Your task to perform on an android device: What's the weather going to be this weekend? Image 0: 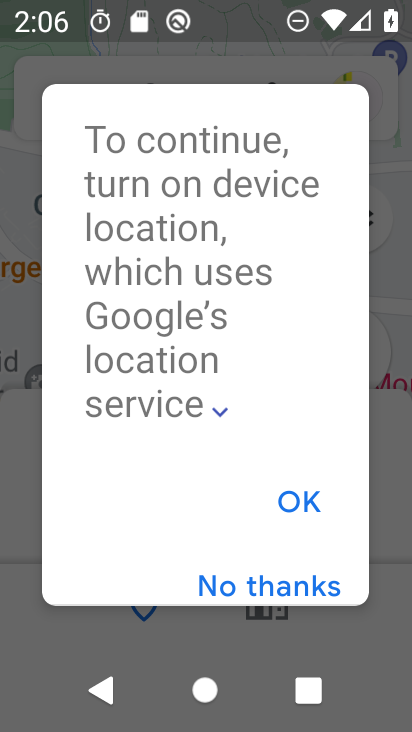
Step 0: press home button
Your task to perform on an android device: What's the weather going to be this weekend? Image 1: 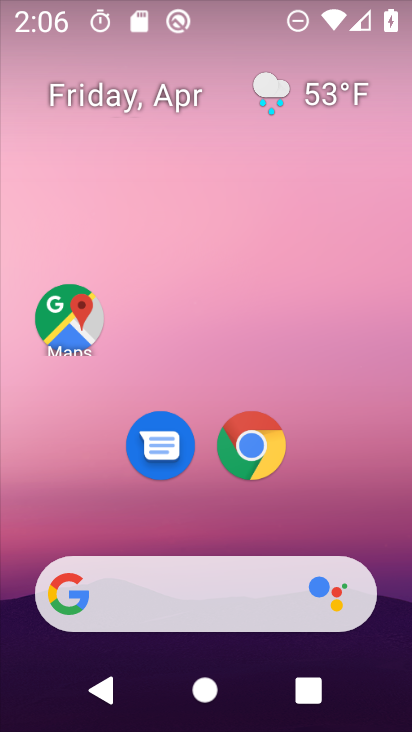
Step 1: click (221, 588)
Your task to perform on an android device: What's the weather going to be this weekend? Image 2: 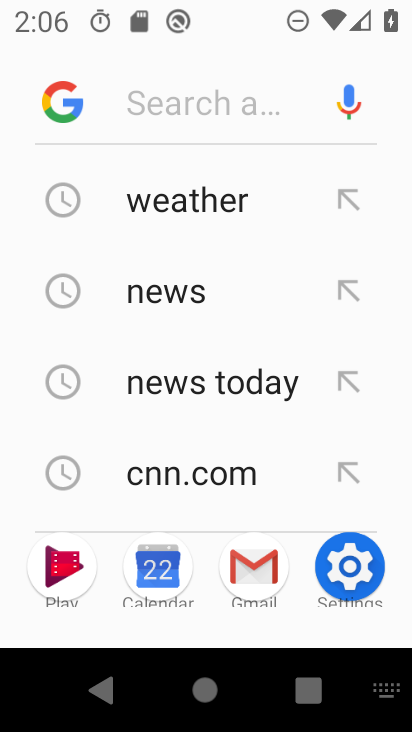
Step 2: click (183, 213)
Your task to perform on an android device: What's the weather going to be this weekend? Image 3: 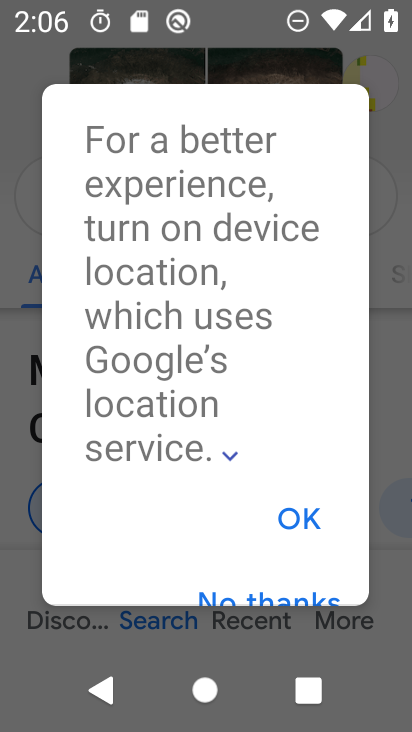
Step 3: drag from (241, 521) to (246, 308)
Your task to perform on an android device: What's the weather going to be this weekend? Image 4: 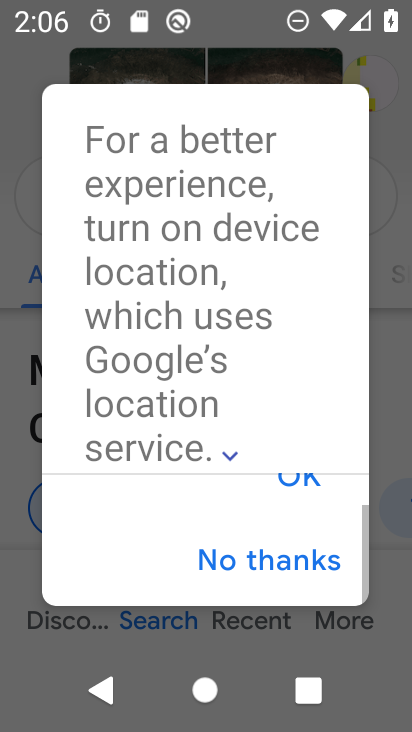
Step 4: click (264, 567)
Your task to perform on an android device: What's the weather going to be this weekend? Image 5: 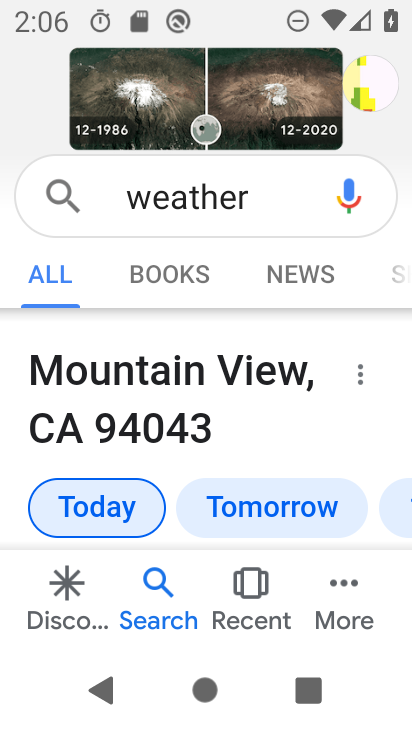
Step 5: click (398, 514)
Your task to perform on an android device: What's the weather going to be this weekend? Image 6: 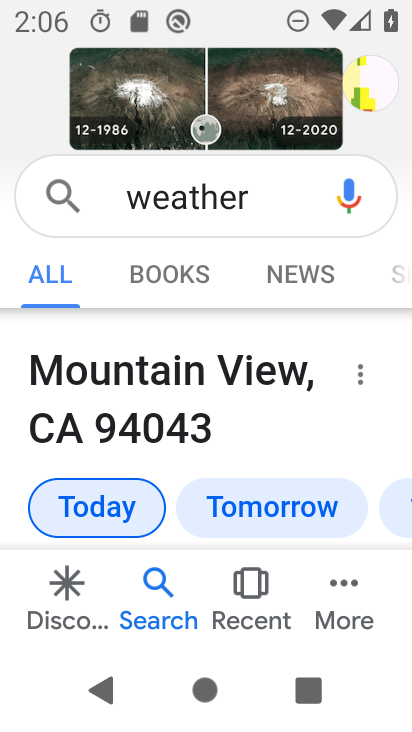
Step 6: drag from (333, 477) to (320, 272)
Your task to perform on an android device: What's the weather going to be this weekend? Image 7: 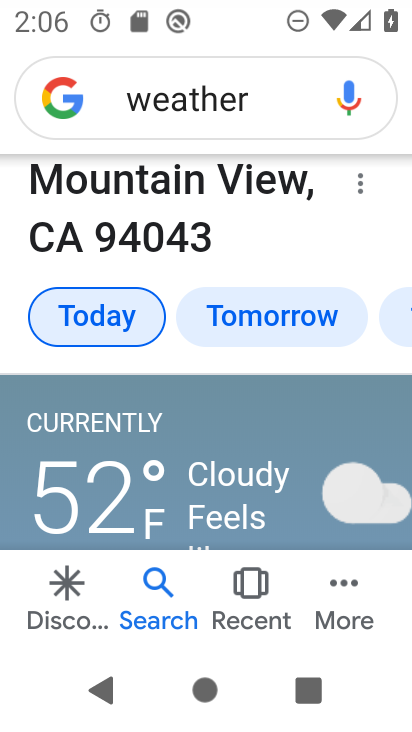
Step 7: drag from (364, 351) to (29, 339)
Your task to perform on an android device: What's the weather going to be this weekend? Image 8: 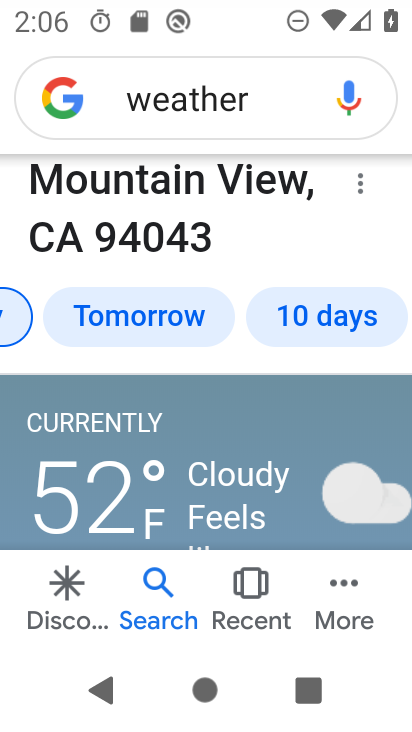
Step 8: click (350, 315)
Your task to perform on an android device: What's the weather going to be this weekend? Image 9: 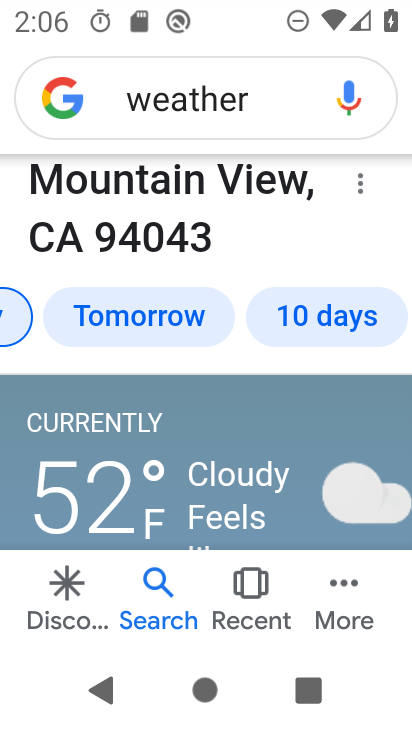
Step 9: click (329, 312)
Your task to perform on an android device: What's the weather going to be this weekend? Image 10: 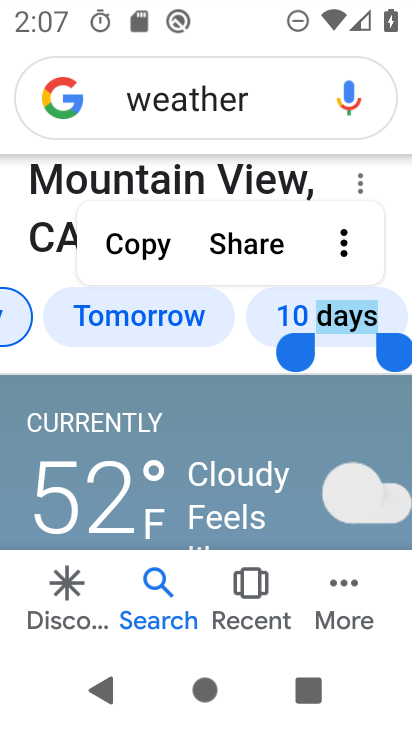
Step 10: task complete